Your task to perform on an android device: Open Google Chrome and click the shortcut for Amazon.com Image 0: 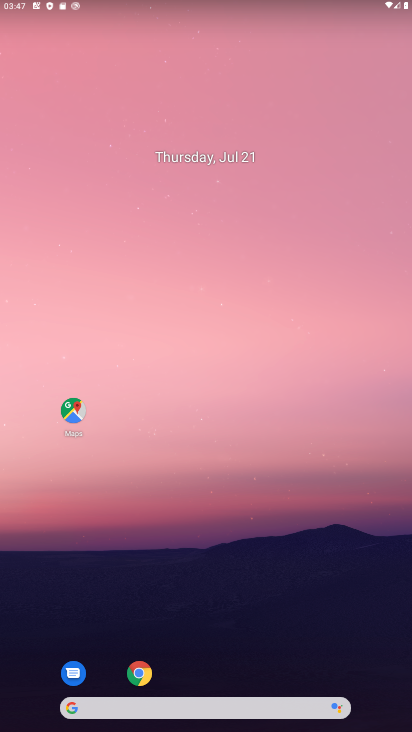
Step 0: drag from (304, 625) to (273, 25)
Your task to perform on an android device: Open Google Chrome and click the shortcut for Amazon.com Image 1: 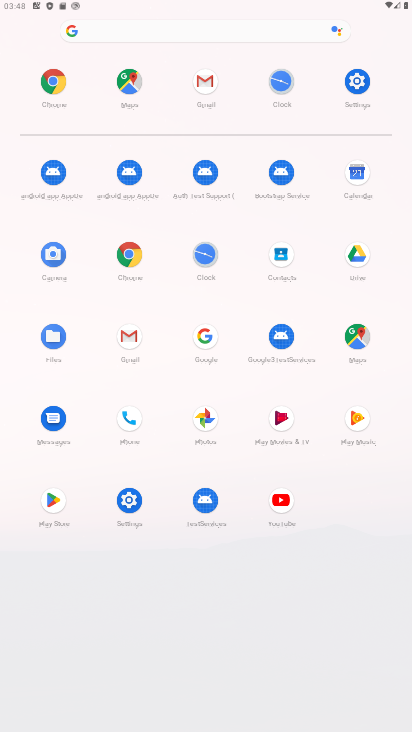
Step 1: click (130, 258)
Your task to perform on an android device: Open Google Chrome and click the shortcut for Amazon.com Image 2: 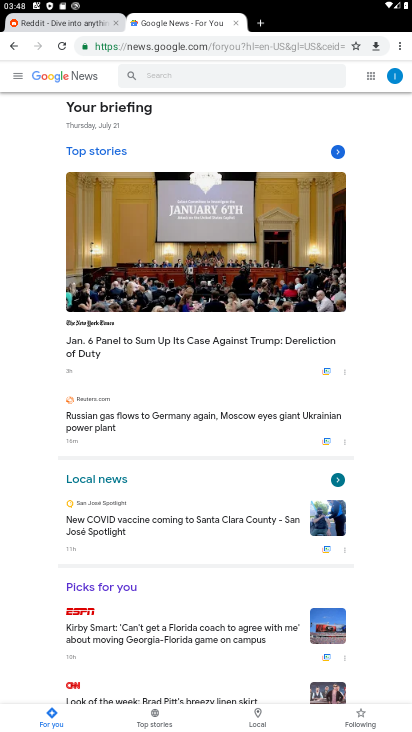
Step 2: click (260, 21)
Your task to perform on an android device: Open Google Chrome and click the shortcut for Amazon.com Image 3: 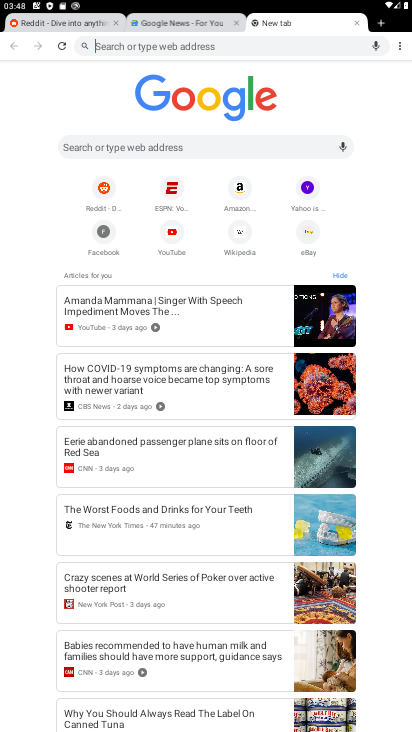
Step 3: click (242, 178)
Your task to perform on an android device: Open Google Chrome and click the shortcut for Amazon.com Image 4: 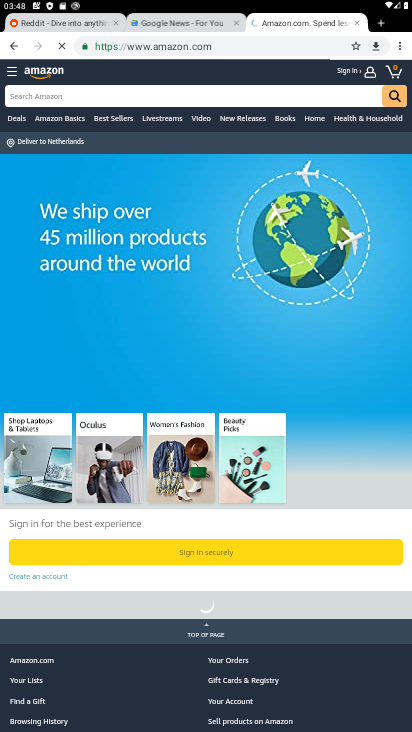
Step 4: task complete